Your task to perform on an android device: turn on the 24-hour format for clock Image 0: 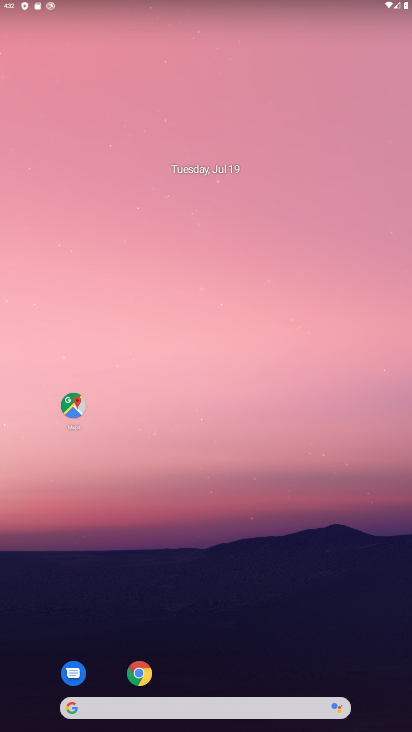
Step 0: drag from (286, 677) to (406, 665)
Your task to perform on an android device: turn on the 24-hour format for clock Image 1: 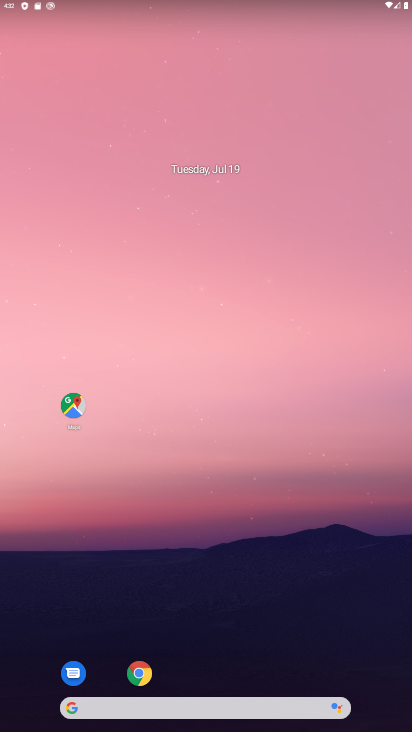
Step 1: drag from (210, 694) to (164, 9)
Your task to perform on an android device: turn on the 24-hour format for clock Image 2: 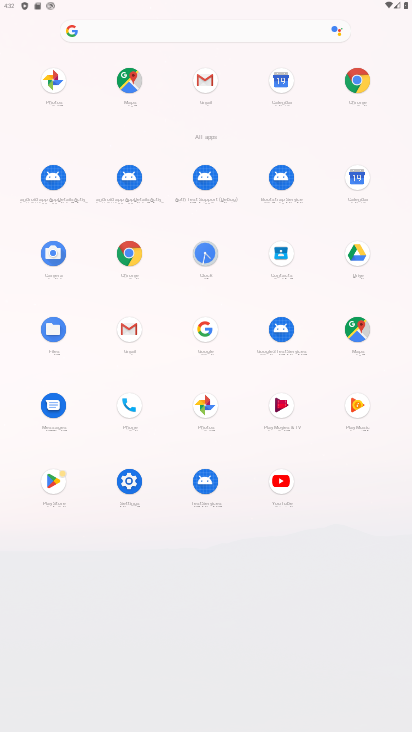
Step 2: click (132, 483)
Your task to perform on an android device: turn on the 24-hour format for clock Image 3: 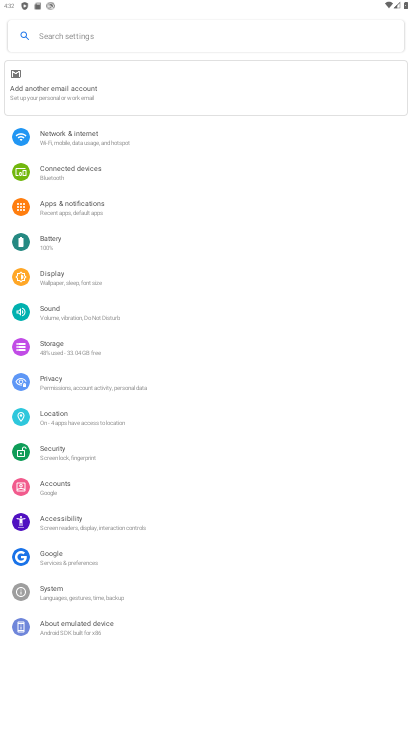
Step 3: click (87, 591)
Your task to perform on an android device: turn on the 24-hour format for clock Image 4: 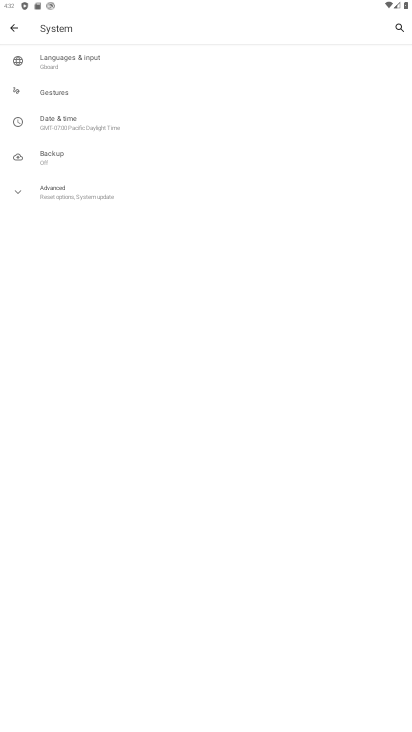
Step 4: click (91, 125)
Your task to perform on an android device: turn on the 24-hour format for clock Image 5: 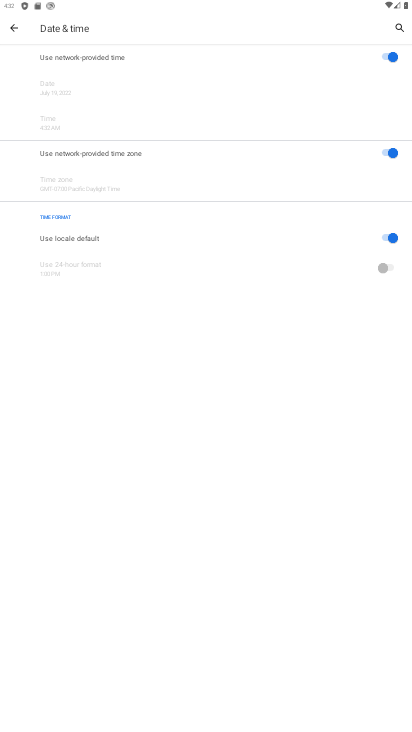
Step 5: click (379, 229)
Your task to perform on an android device: turn on the 24-hour format for clock Image 6: 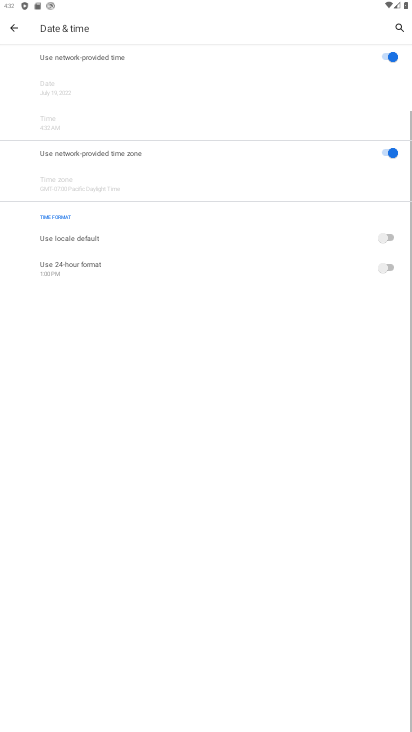
Step 6: click (404, 266)
Your task to perform on an android device: turn on the 24-hour format for clock Image 7: 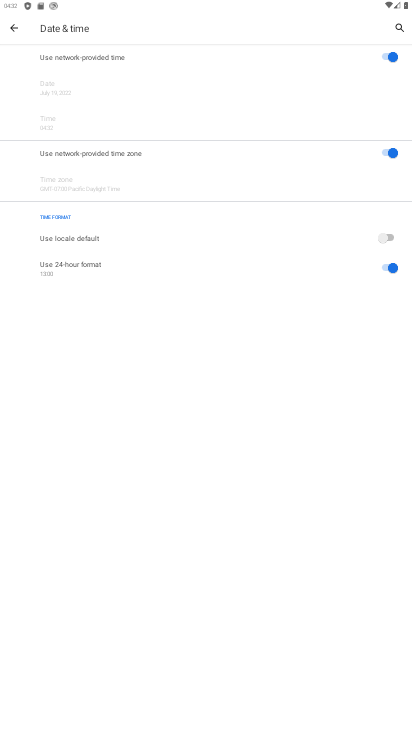
Step 7: task complete